Your task to perform on an android device: turn on improve location accuracy Image 0: 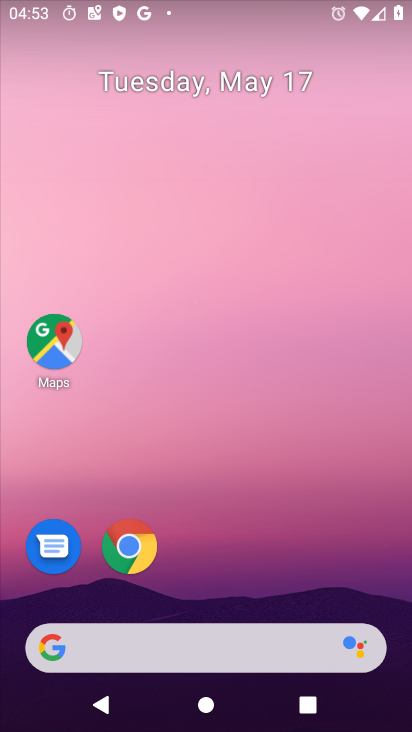
Step 0: drag from (345, 452) to (289, 268)
Your task to perform on an android device: turn on improve location accuracy Image 1: 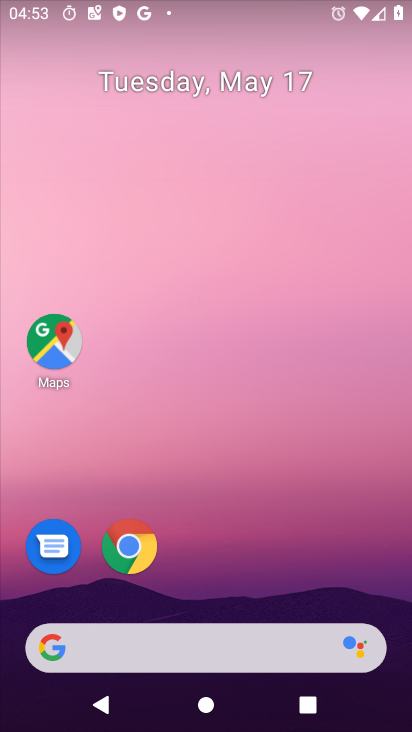
Step 1: drag from (397, 598) to (368, 336)
Your task to perform on an android device: turn on improve location accuracy Image 2: 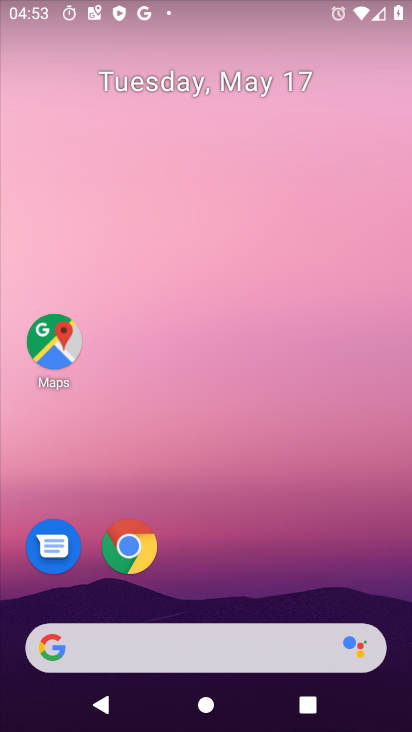
Step 2: drag from (400, 663) to (408, 298)
Your task to perform on an android device: turn on improve location accuracy Image 3: 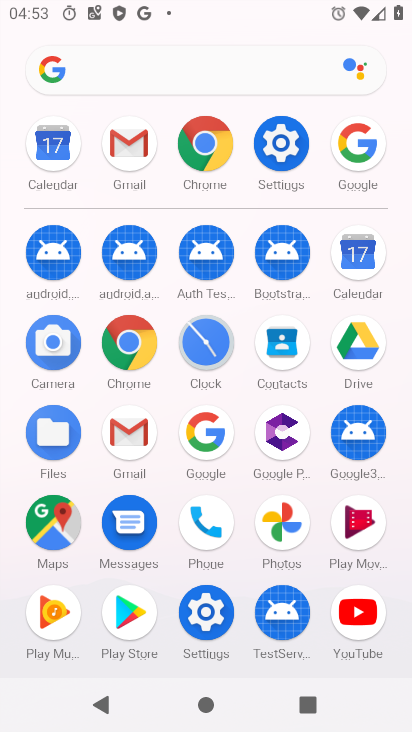
Step 3: click (270, 129)
Your task to perform on an android device: turn on improve location accuracy Image 4: 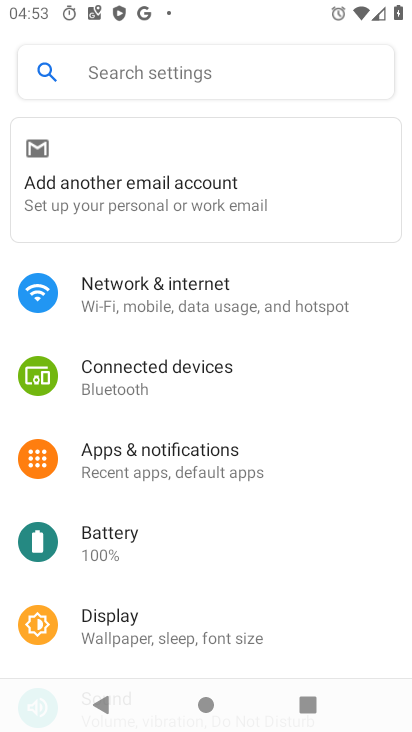
Step 4: drag from (323, 569) to (335, 385)
Your task to perform on an android device: turn on improve location accuracy Image 5: 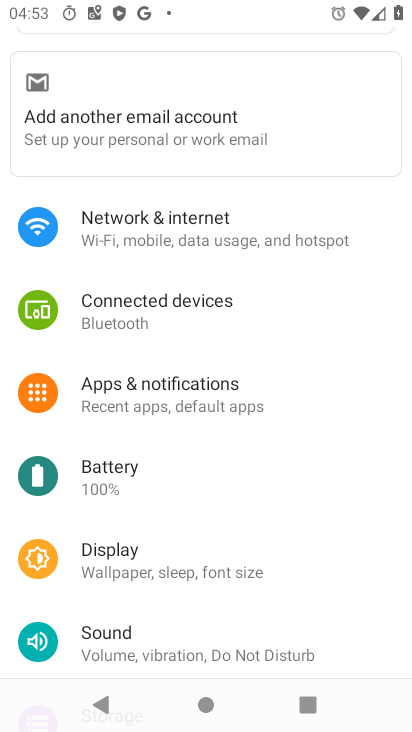
Step 5: drag from (345, 638) to (366, 381)
Your task to perform on an android device: turn on improve location accuracy Image 6: 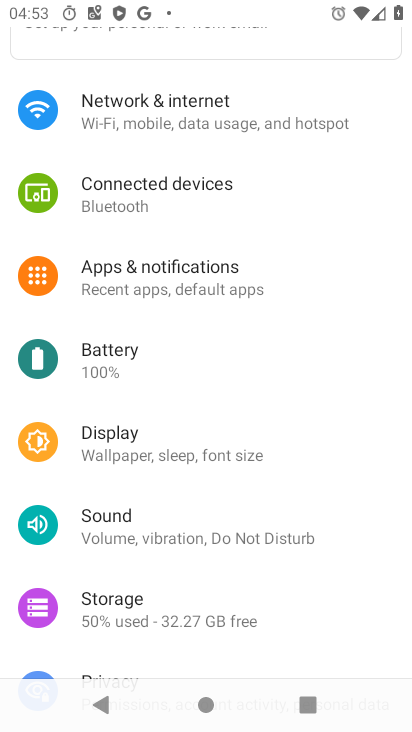
Step 6: click (358, 395)
Your task to perform on an android device: turn on improve location accuracy Image 7: 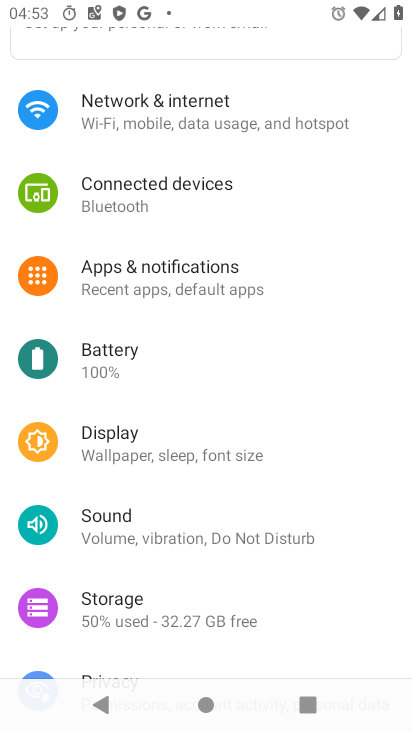
Step 7: drag from (334, 612) to (336, 383)
Your task to perform on an android device: turn on improve location accuracy Image 8: 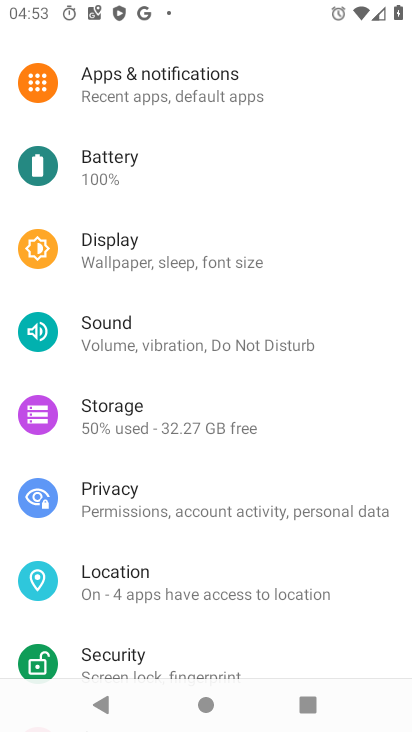
Step 8: click (107, 572)
Your task to perform on an android device: turn on improve location accuracy Image 9: 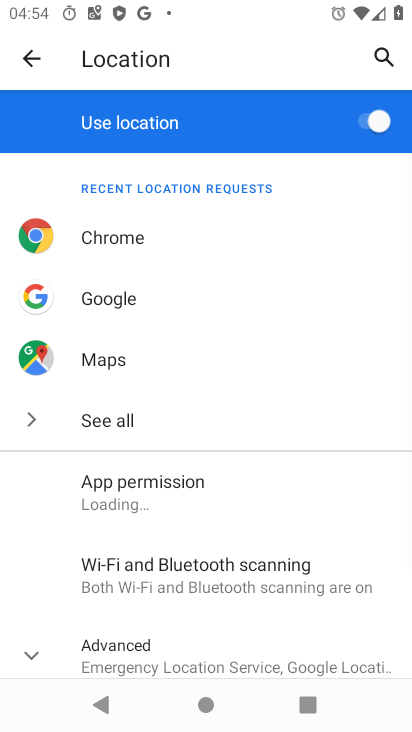
Step 9: drag from (345, 617) to (379, 377)
Your task to perform on an android device: turn on improve location accuracy Image 10: 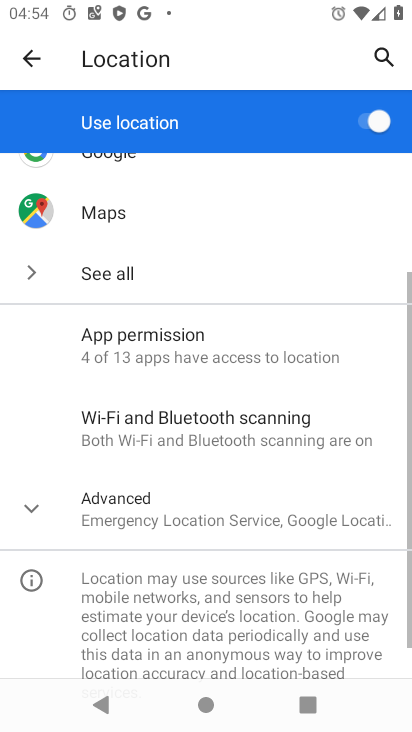
Step 10: drag from (334, 605) to (360, 410)
Your task to perform on an android device: turn on improve location accuracy Image 11: 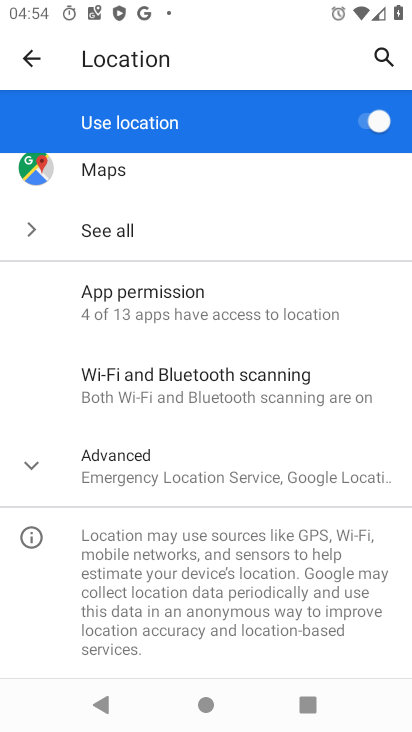
Step 11: click (25, 462)
Your task to perform on an android device: turn on improve location accuracy Image 12: 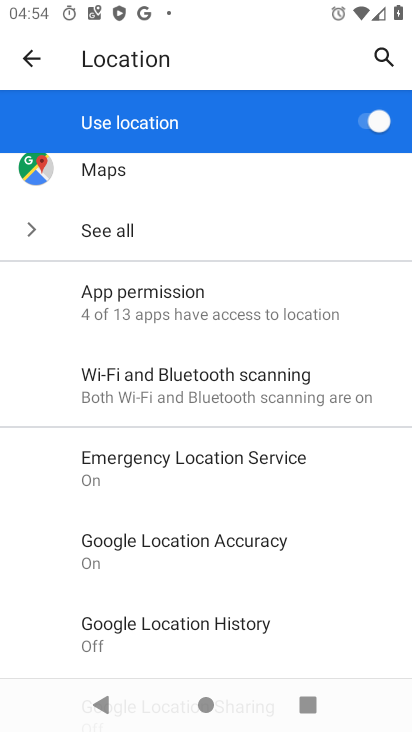
Step 12: drag from (342, 604) to (347, 482)
Your task to perform on an android device: turn on improve location accuracy Image 13: 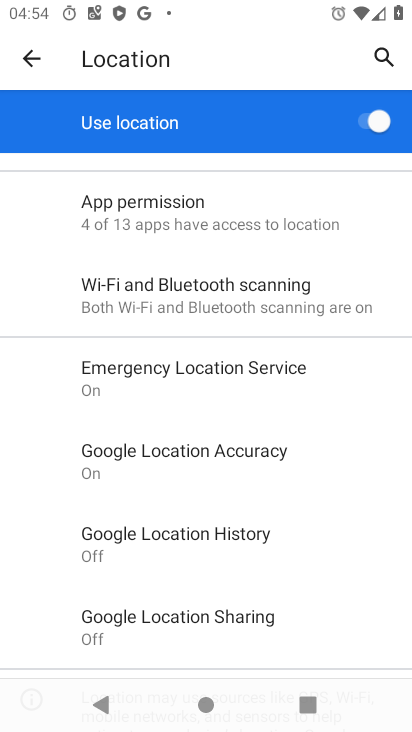
Step 13: click (111, 448)
Your task to perform on an android device: turn on improve location accuracy Image 14: 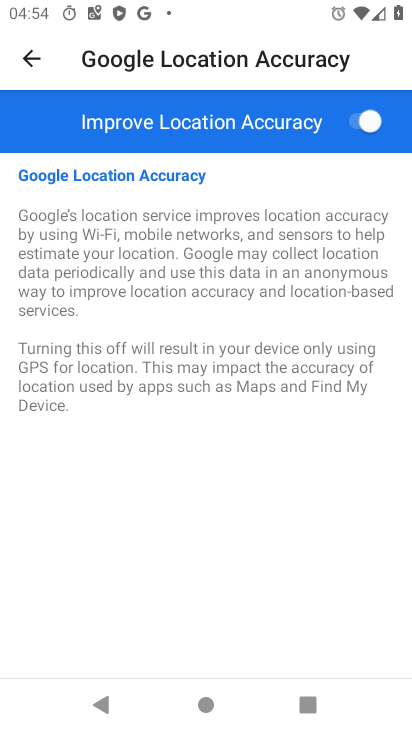
Step 14: task complete